Your task to perform on an android device: What's the weather? Image 0: 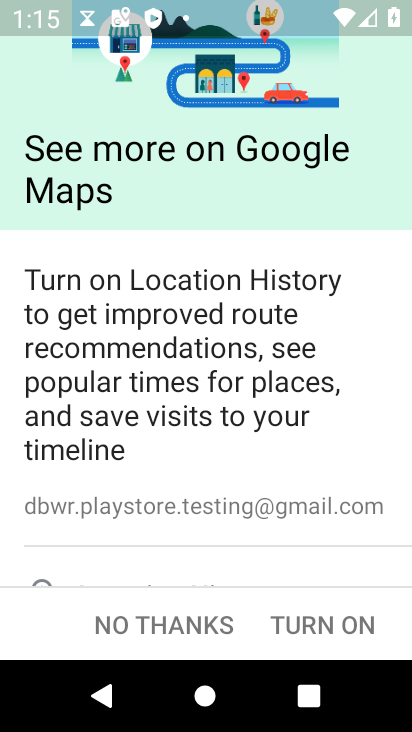
Step 0: press home button
Your task to perform on an android device: What's the weather? Image 1: 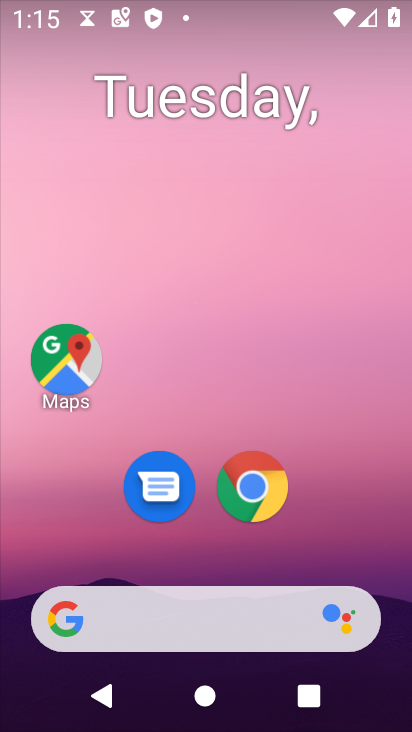
Step 1: click (254, 501)
Your task to perform on an android device: What's the weather? Image 2: 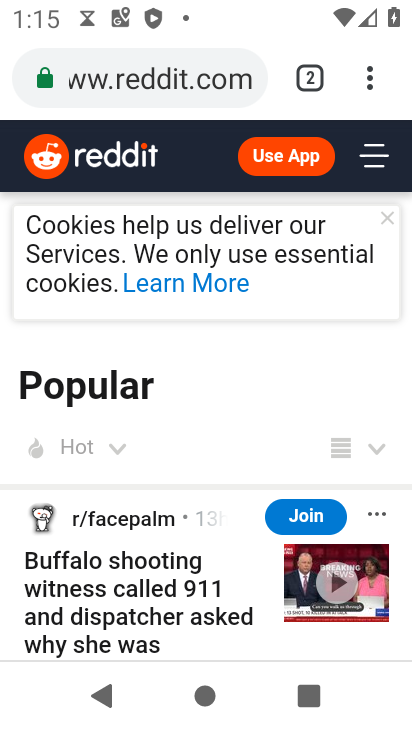
Step 2: click (160, 80)
Your task to perform on an android device: What's the weather? Image 3: 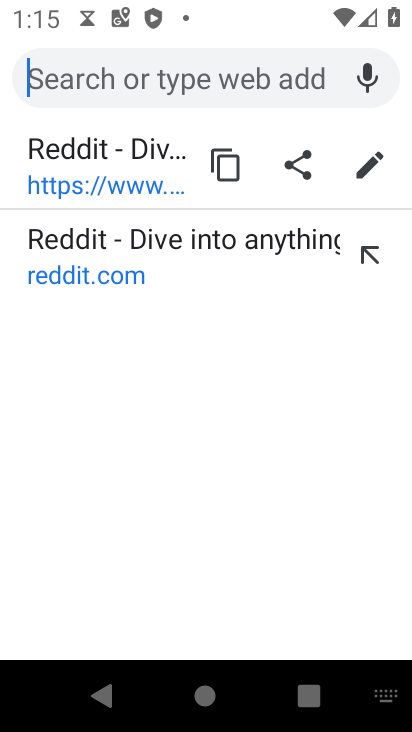
Step 3: type "What's the weather?"
Your task to perform on an android device: What's the weather? Image 4: 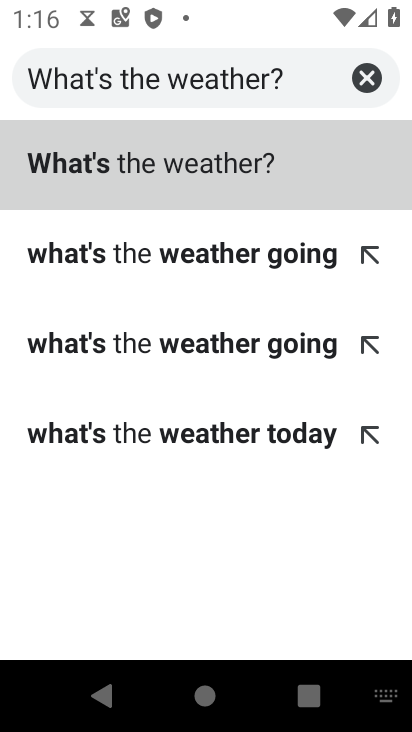
Step 4: click (191, 155)
Your task to perform on an android device: What's the weather? Image 5: 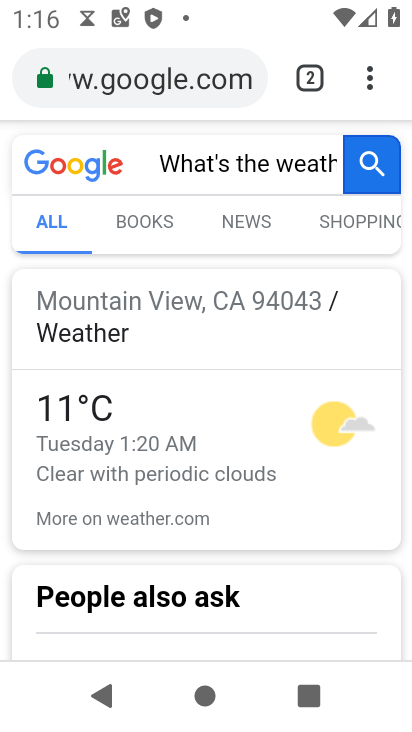
Step 5: task complete